Your task to perform on an android device: turn on the 24-hour format for clock Image 0: 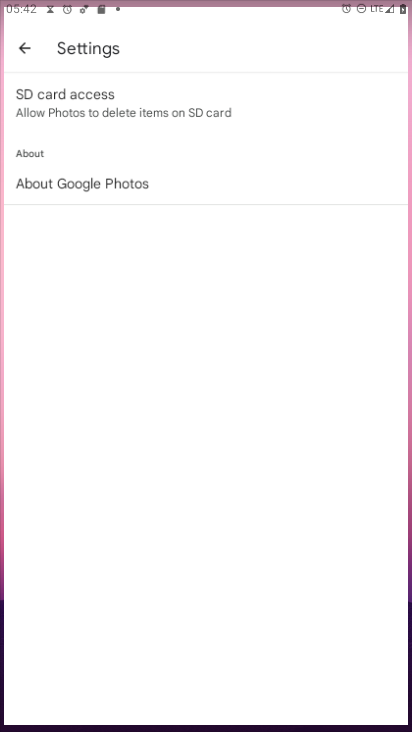
Step 0: press home button
Your task to perform on an android device: turn on the 24-hour format for clock Image 1: 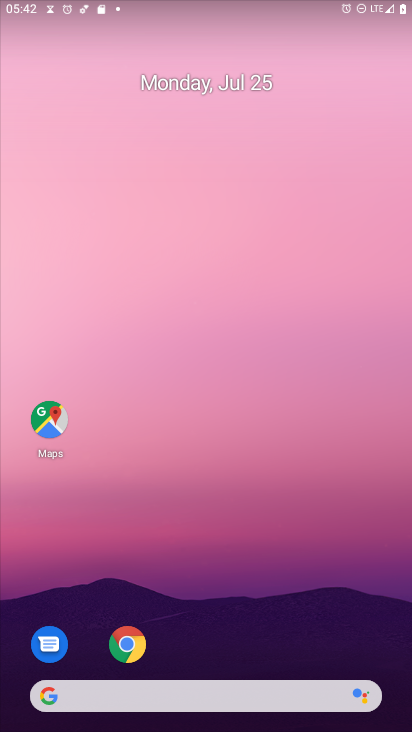
Step 1: drag from (259, 612) to (410, 221)
Your task to perform on an android device: turn on the 24-hour format for clock Image 2: 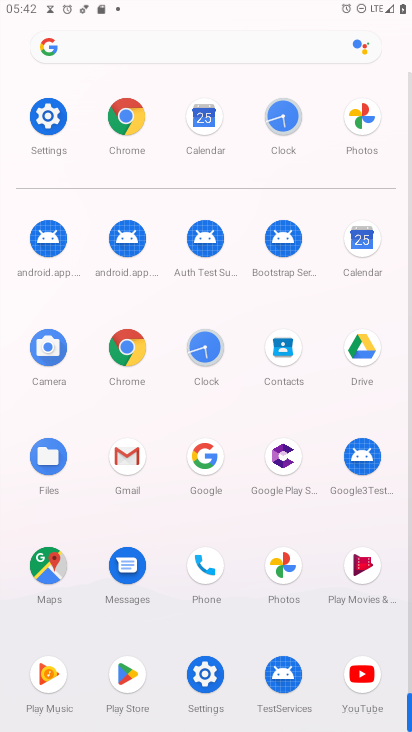
Step 2: click (55, 126)
Your task to perform on an android device: turn on the 24-hour format for clock Image 3: 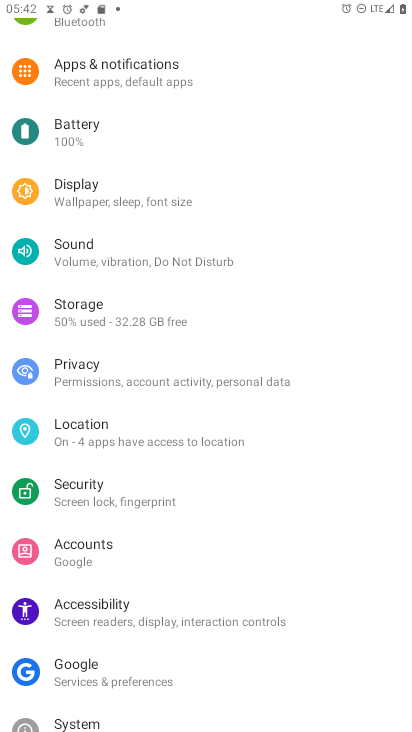
Step 3: drag from (260, 677) to (322, 301)
Your task to perform on an android device: turn on the 24-hour format for clock Image 4: 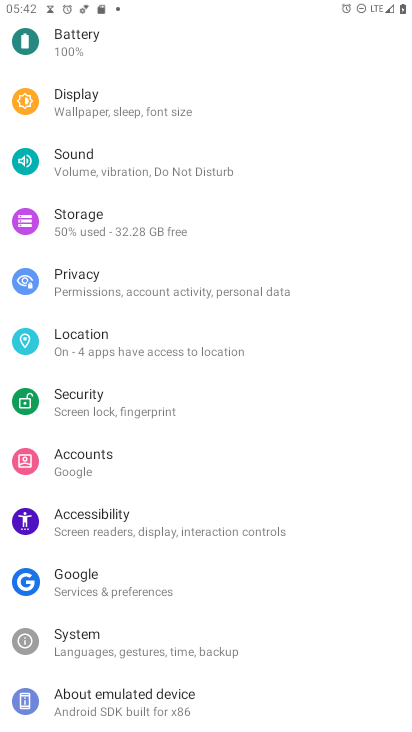
Step 4: click (70, 647)
Your task to perform on an android device: turn on the 24-hour format for clock Image 5: 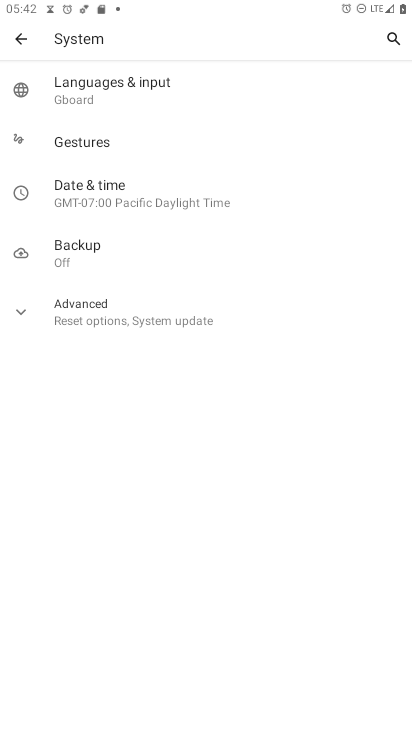
Step 5: click (116, 187)
Your task to perform on an android device: turn on the 24-hour format for clock Image 6: 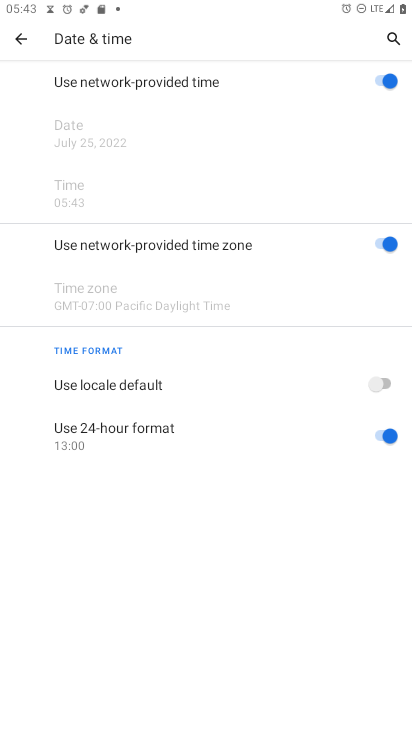
Step 6: task complete